Your task to perform on an android device: See recent photos Image 0: 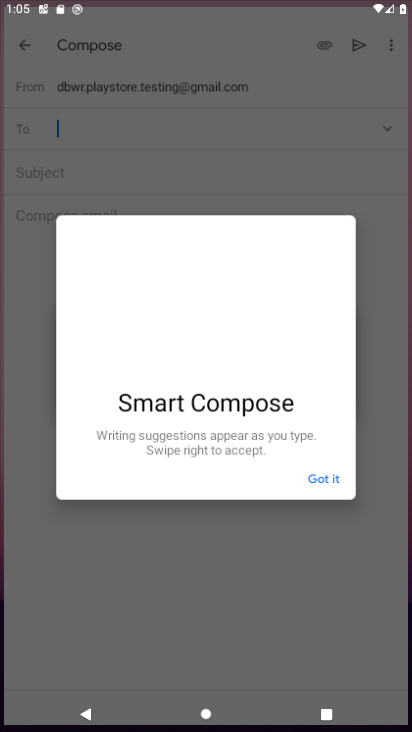
Step 0: drag from (333, 595) to (333, 132)
Your task to perform on an android device: See recent photos Image 1: 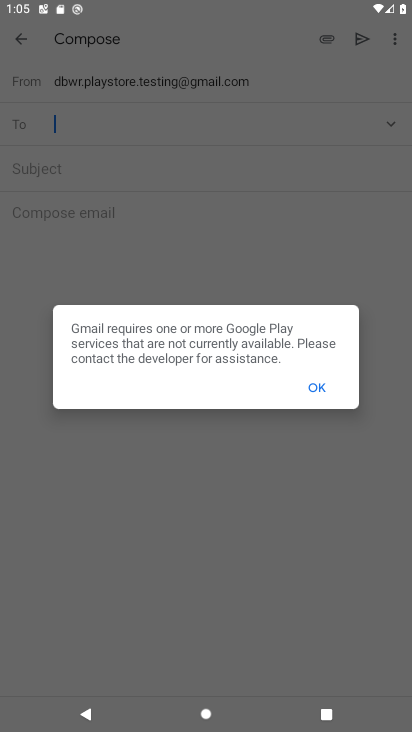
Step 1: press home button
Your task to perform on an android device: See recent photos Image 2: 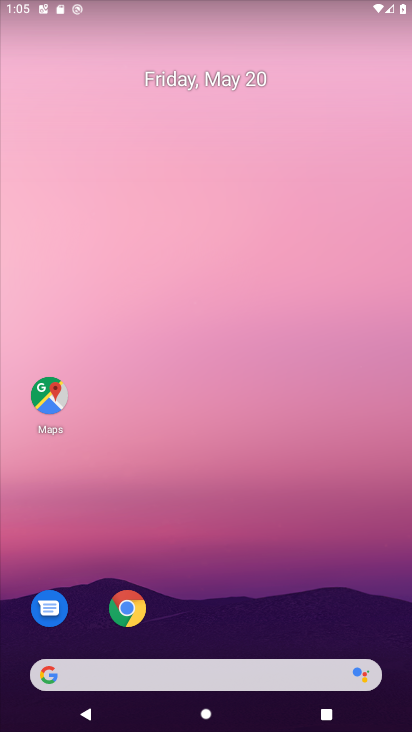
Step 2: drag from (242, 543) to (271, 158)
Your task to perform on an android device: See recent photos Image 3: 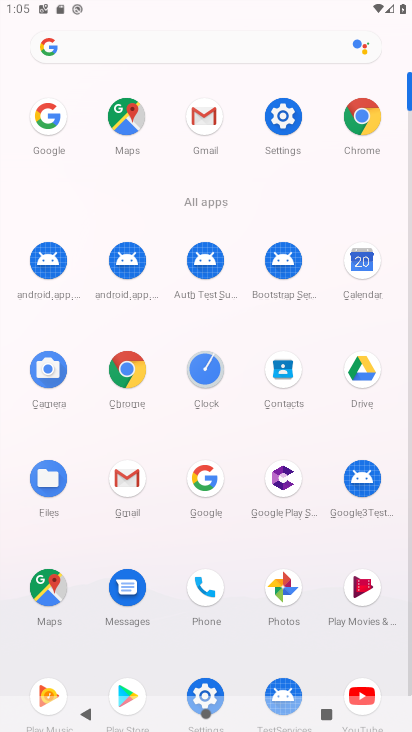
Step 3: click (274, 589)
Your task to perform on an android device: See recent photos Image 4: 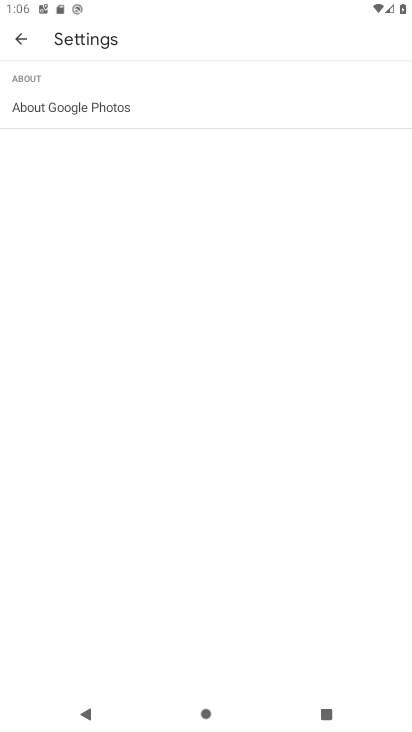
Step 4: press back button
Your task to perform on an android device: See recent photos Image 5: 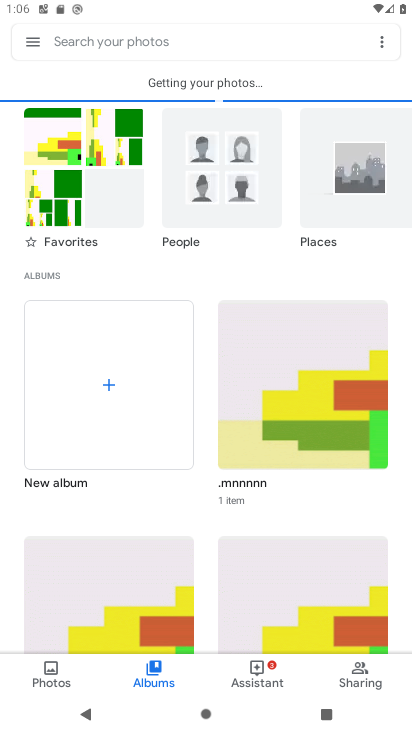
Step 5: click (47, 682)
Your task to perform on an android device: See recent photos Image 6: 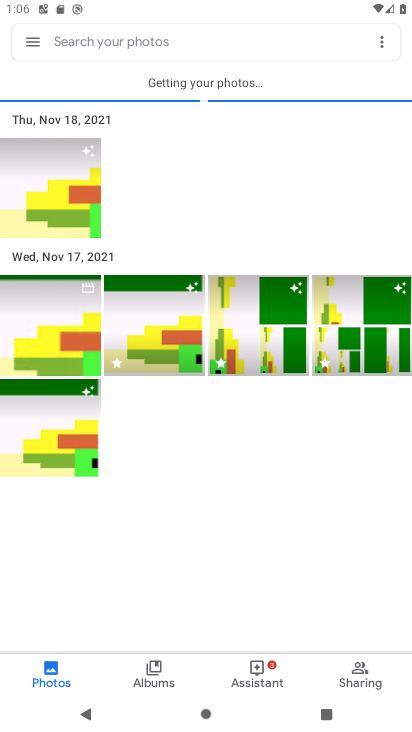
Step 6: task complete